Your task to perform on an android device: Open maps Image 0: 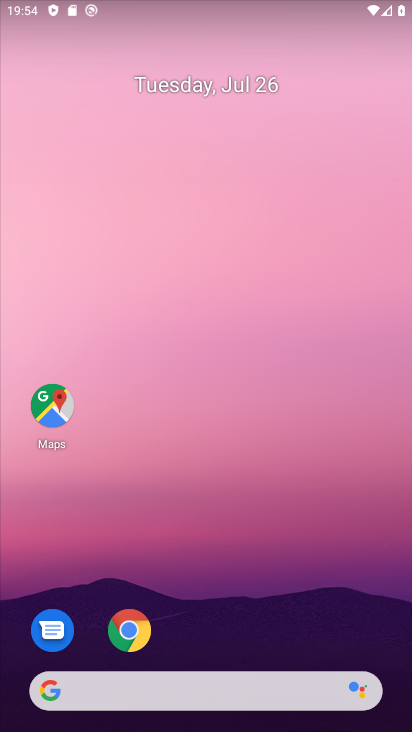
Step 0: drag from (363, 631) to (377, 135)
Your task to perform on an android device: Open maps Image 1: 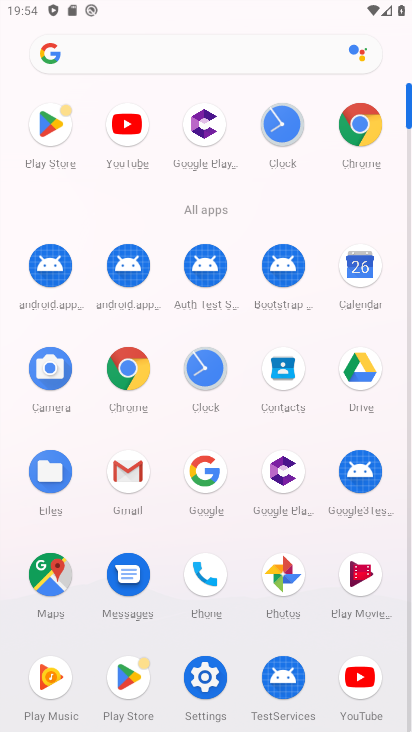
Step 1: click (55, 585)
Your task to perform on an android device: Open maps Image 2: 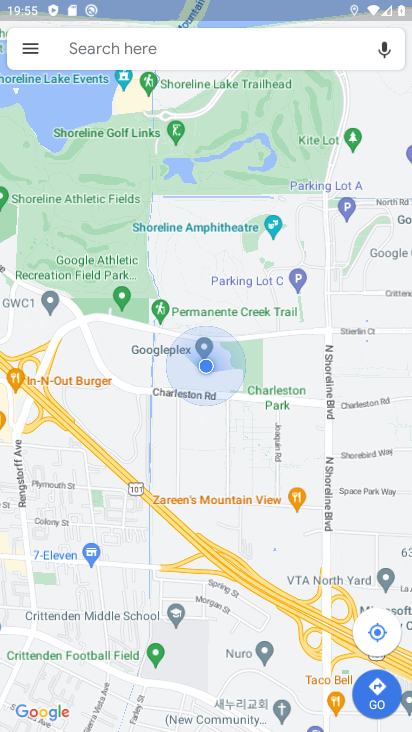
Step 2: task complete